Your task to perform on an android device: turn smart compose on in the gmail app Image 0: 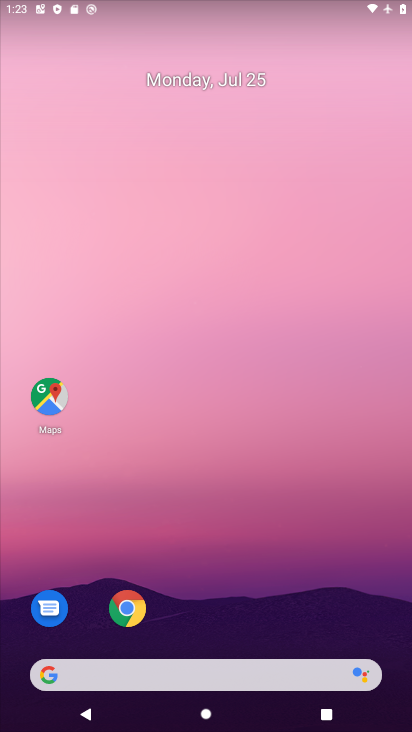
Step 0: drag from (239, 538) to (254, 74)
Your task to perform on an android device: turn smart compose on in the gmail app Image 1: 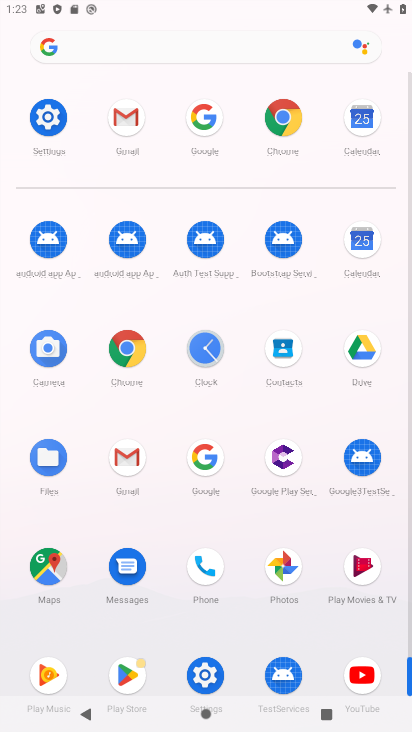
Step 1: click (138, 480)
Your task to perform on an android device: turn smart compose on in the gmail app Image 2: 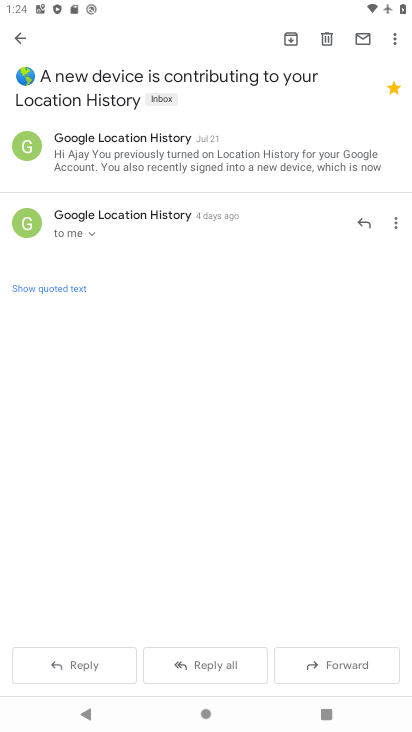
Step 2: click (23, 37)
Your task to perform on an android device: turn smart compose on in the gmail app Image 3: 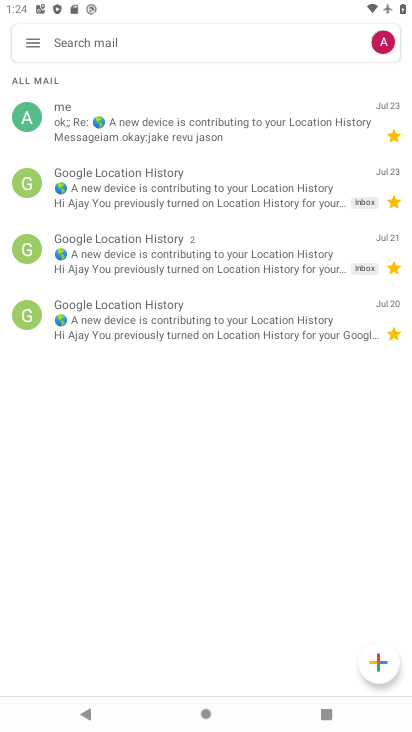
Step 3: click (34, 48)
Your task to perform on an android device: turn smart compose on in the gmail app Image 4: 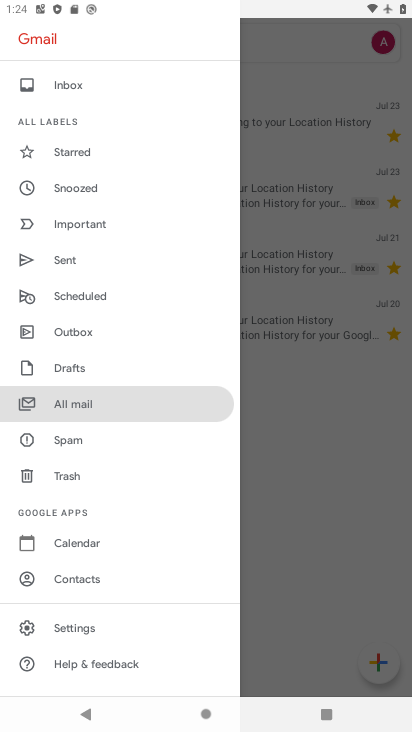
Step 4: click (67, 632)
Your task to perform on an android device: turn smart compose on in the gmail app Image 5: 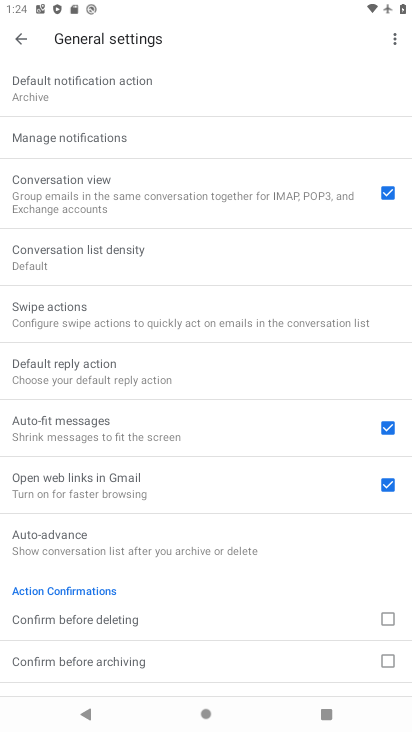
Step 5: click (17, 38)
Your task to perform on an android device: turn smart compose on in the gmail app Image 6: 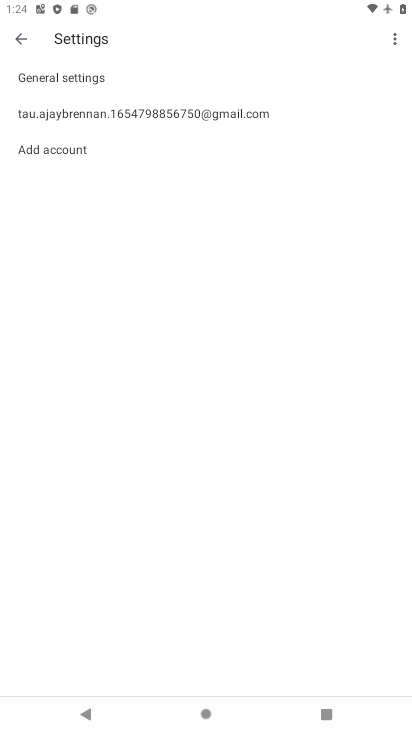
Step 6: click (71, 115)
Your task to perform on an android device: turn smart compose on in the gmail app Image 7: 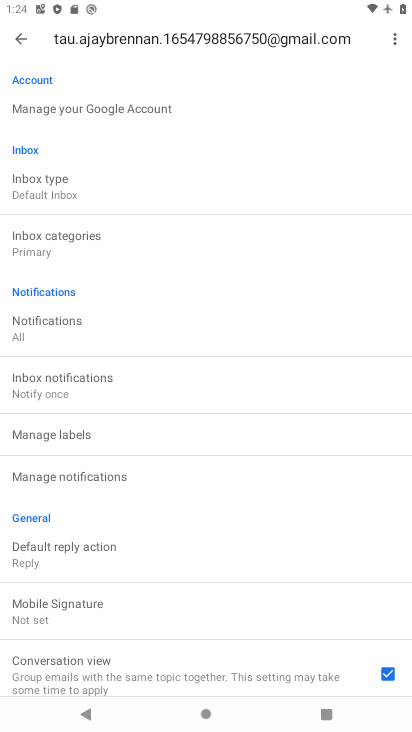
Step 7: click (119, 79)
Your task to perform on an android device: turn smart compose on in the gmail app Image 8: 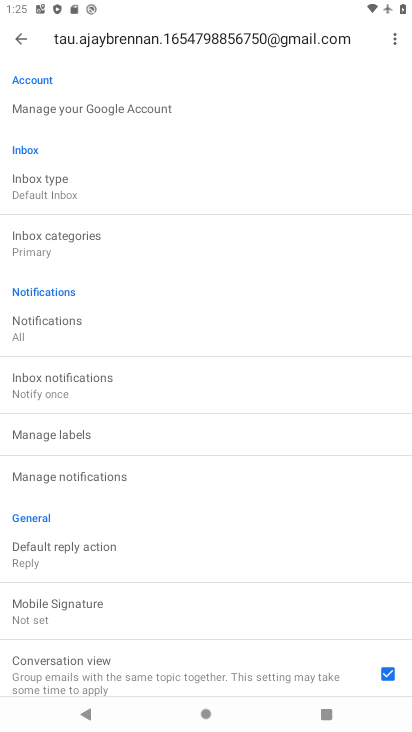
Step 8: click (213, 74)
Your task to perform on an android device: turn smart compose on in the gmail app Image 9: 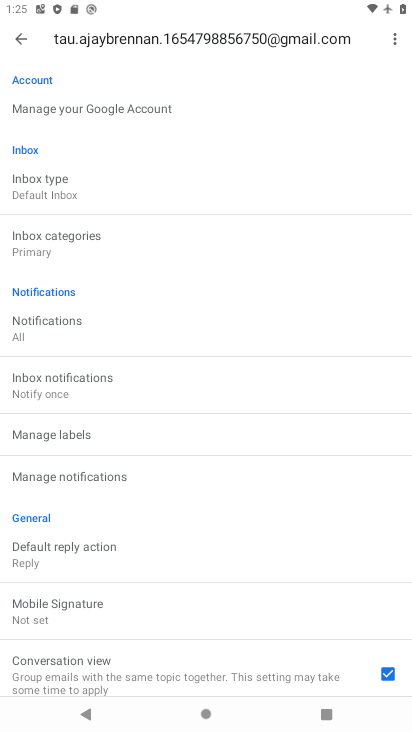
Step 9: drag from (126, 585) to (177, 212)
Your task to perform on an android device: turn smart compose on in the gmail app Image 10: 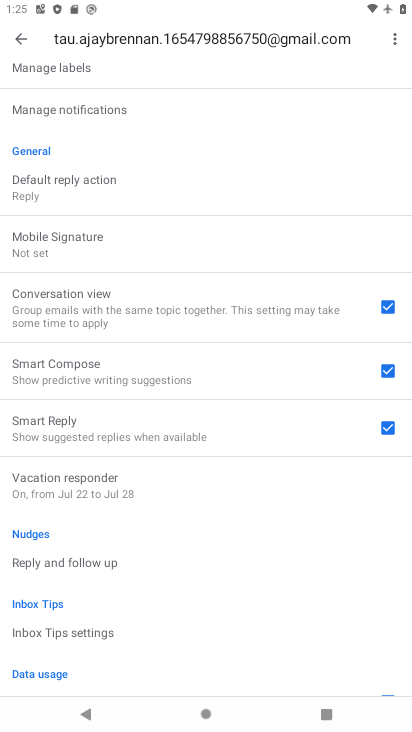
Step 10: click (153, 491)
Your task to perform on an android device: turn smart compose on in the gmail app Image 11: 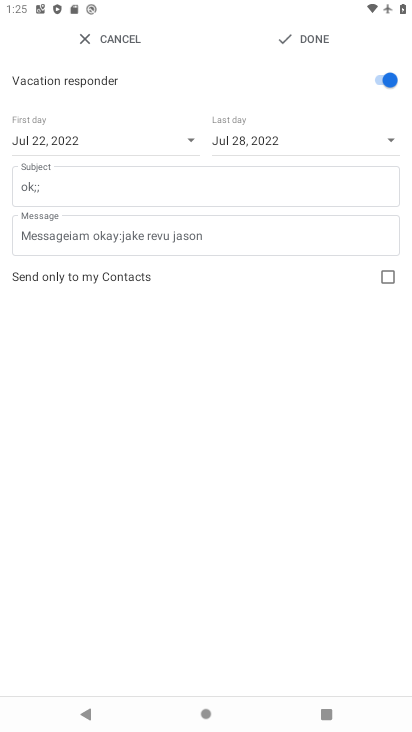
Step 11: click (106, 38)
Your task to perform on an android device: turn smart compose on in the gmail app Image 12: 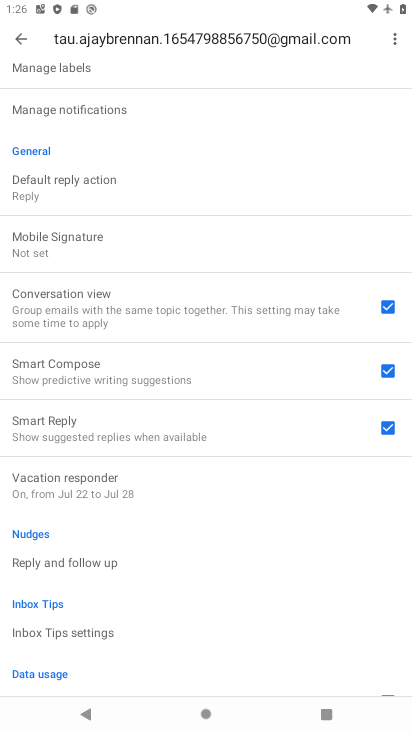
Step 12: task complete